Your task to perform on an android device: Open the calendar and show me this week's events Image 0: 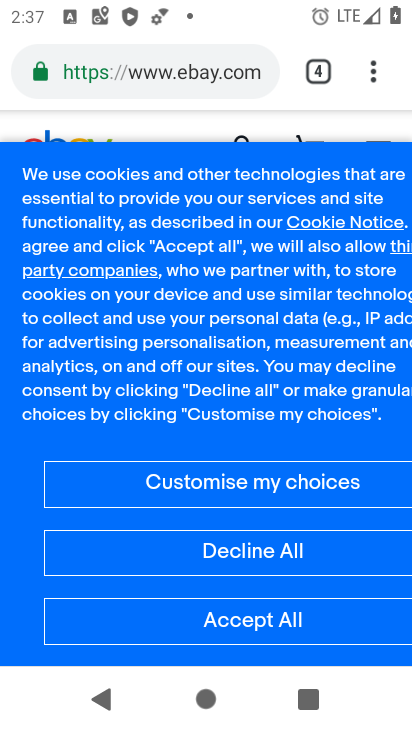
Step 0: press home button
Your task to perform on an android device: Open the calendar and show me this week's events Image 1: 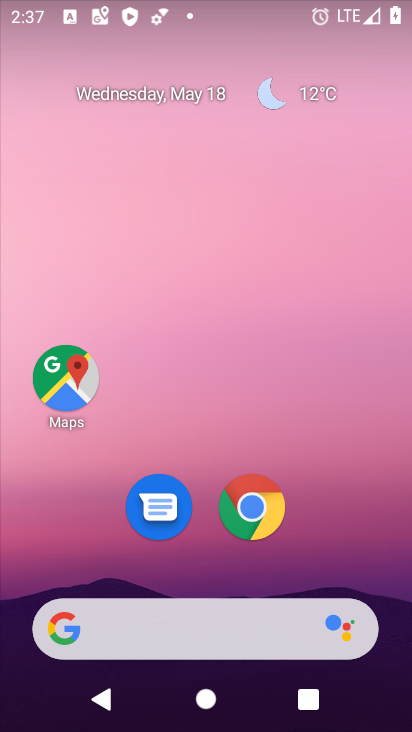
Step 1: drag from (365, 584) to (300, 89)
Your task to perform on an android device: Open the calendar and show me this week's events Image 2: 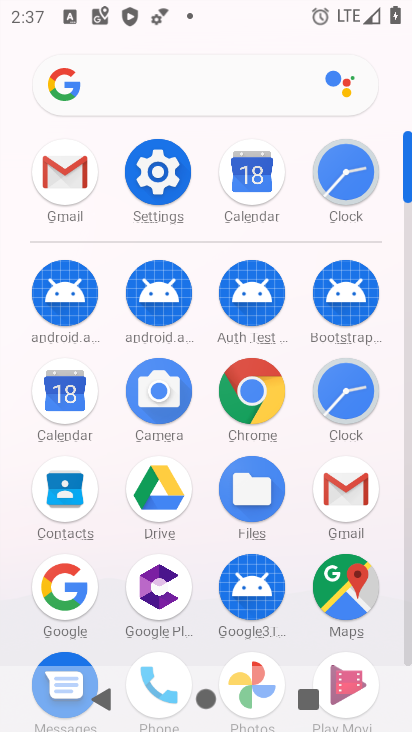
Step 2: click (407, 635)
Your task to perform on an android device: Open the calendar and show me this week's events Image 3: 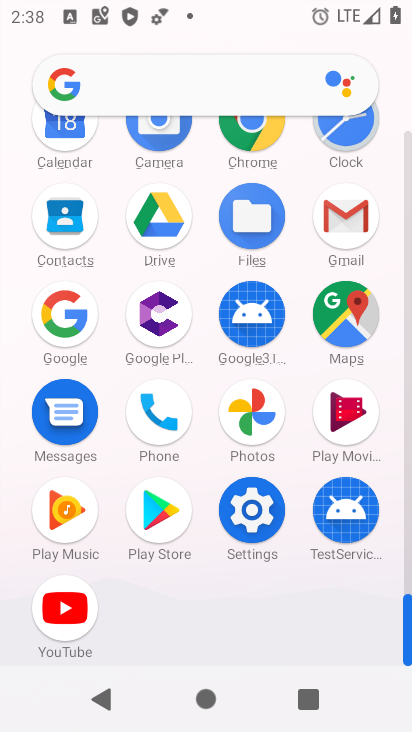
Step 3: click (66, 137)
Your task to perform on an android device: Open the calendar and show me this week's events Image 4: 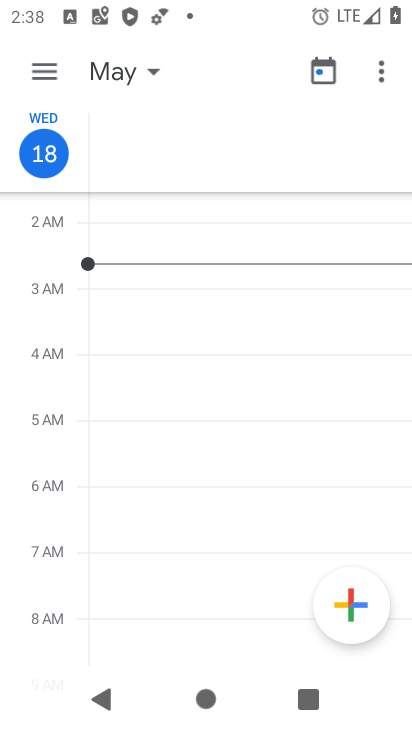
Step 4: click (45, 70)
Your task to perform on an android device: Open the calendar and show me this week's events Image 5: 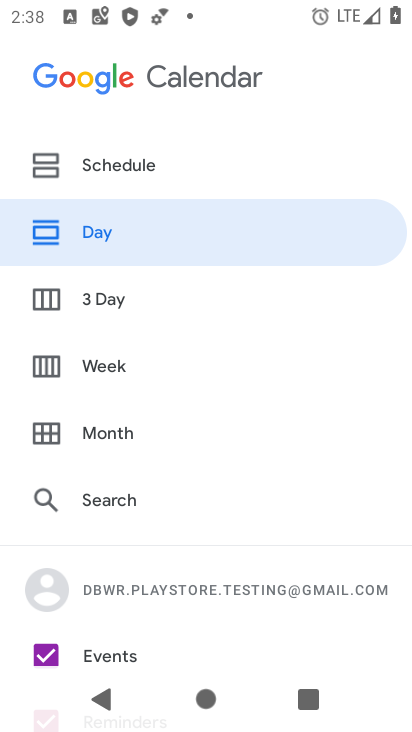
Step 5: click (101, 365)
Your task to perform on an android device: Open the calendar and show me this week's events Image 6: 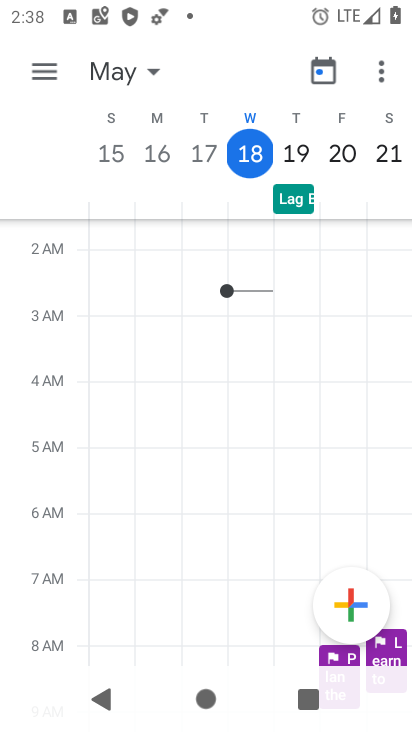
Step 6: task complete